Your task to perform on an android device: turn smart compose on in the gmail app Image 0: 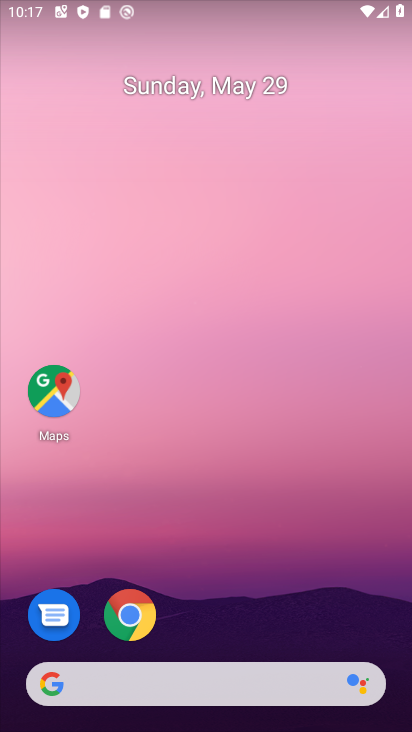
Step 0: drag from (188, 648) to (329, 54)
Your task to perform on an android device: turn smart compose on in the gmail app Image 1: 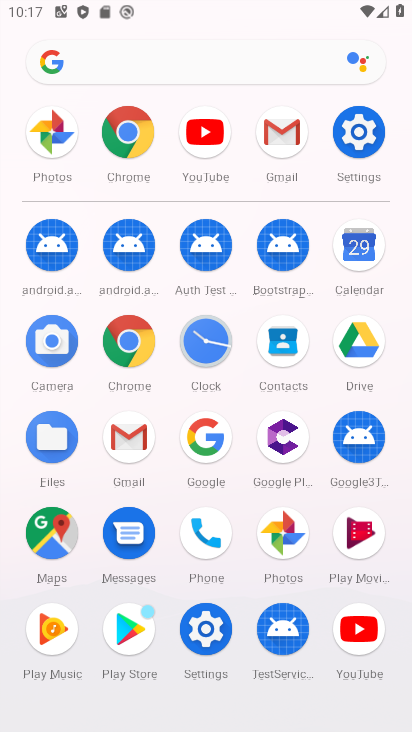
Step 1: click (115, 438)
Your task to perform on an android device: turn smart compose on in the gmail app Image 2: 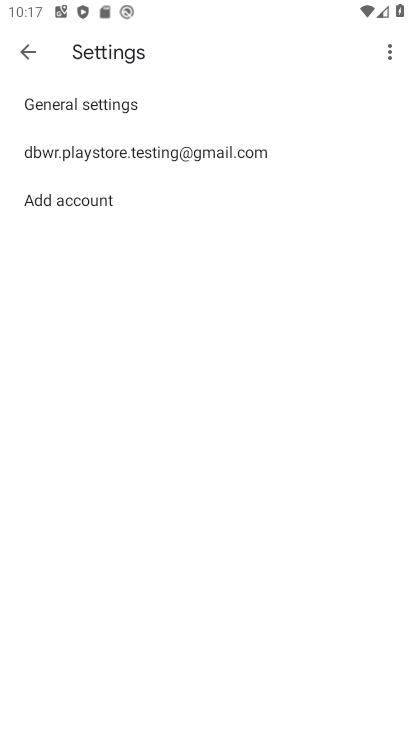
Step 2: click (66, 169)
Your task to perform on an android device: turn smart compose on in the gmail app Image 3: 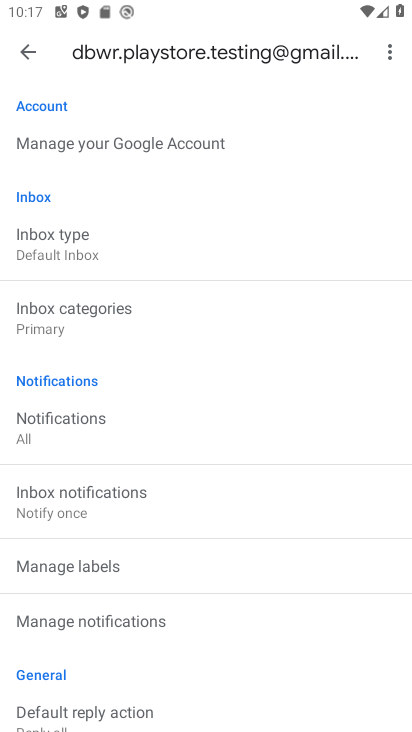
Step 3: task complete